Your task to perform on an android device: turn off javascript in the chrome app Image 0: 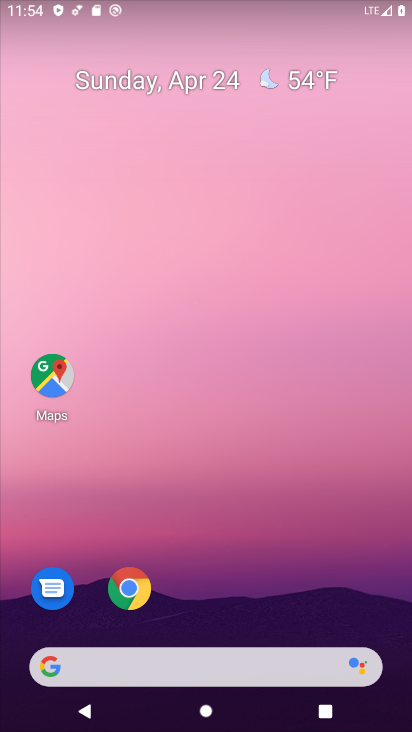
Step 0: drag from (230, 626) to (230, 5)
Your task to perform on an android device: turn off javascript in the chrome app Image 1: 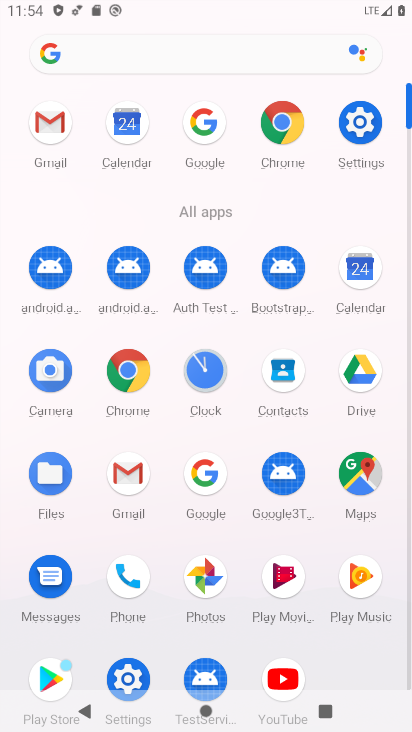
Step 1: click (126, 375)
Your task to perform on an android device: turn off javascript in the chrome app Image 2: 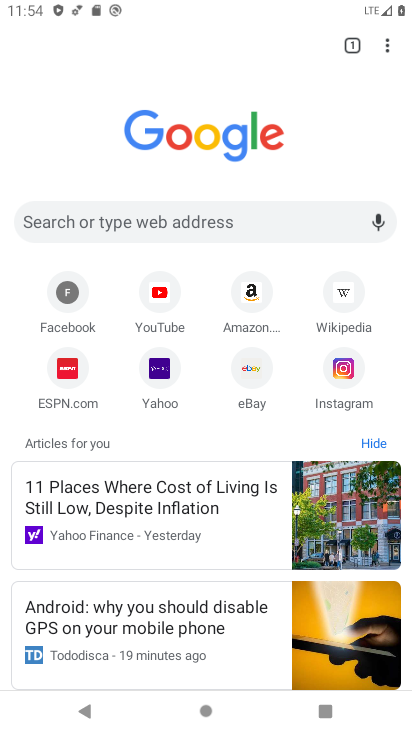
Step 2: click (388, 50)
Your task to perform on an android device: turn off javascript in the chrome app Image 3: 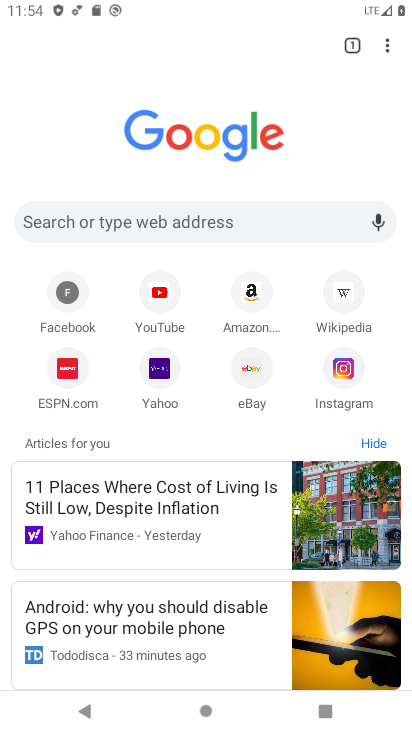
Step 3: click (391, 38)
Your task to perform on an android device: turn off javascript in the chrome app Image 4: 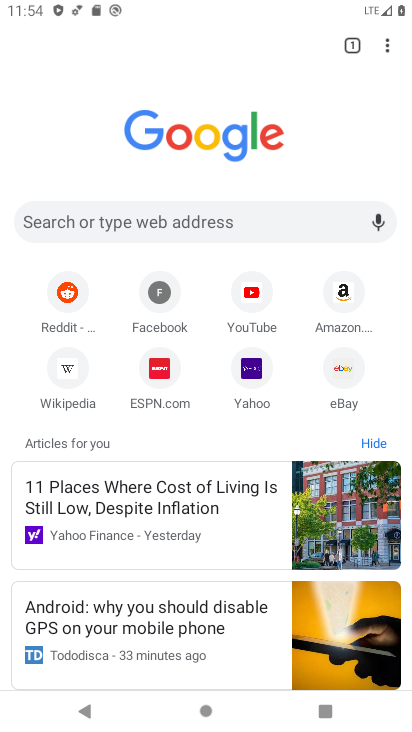
Step 4: click (387, 56)
Your task to perform on an android device: turn off javascript in the chrome app Image 5: 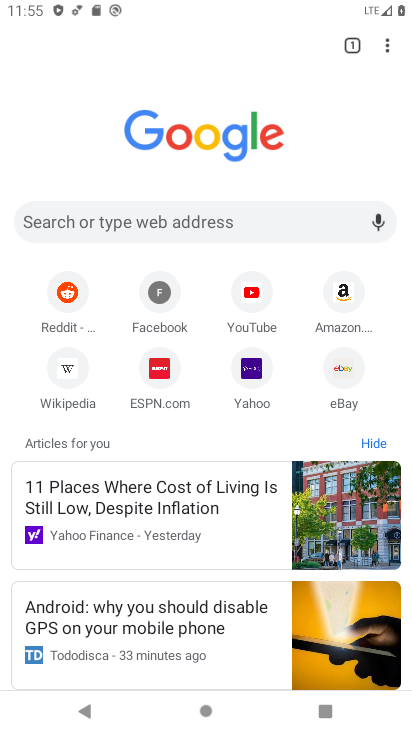
Step 5: drag from (386, 43) to (224, 389)
Your task to perform on an android device: turn off javascript in the chrome app Image 6: 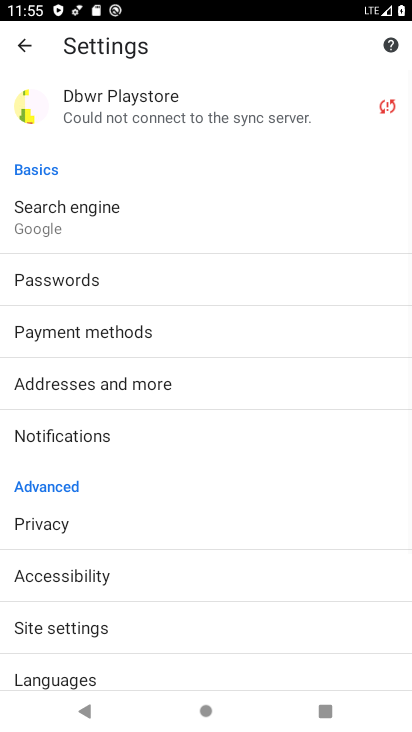
Step 6: drag from (221, 574) to (191, 297)
Your task to perform on an android device: turn off javascript in the chrome app Image 7: 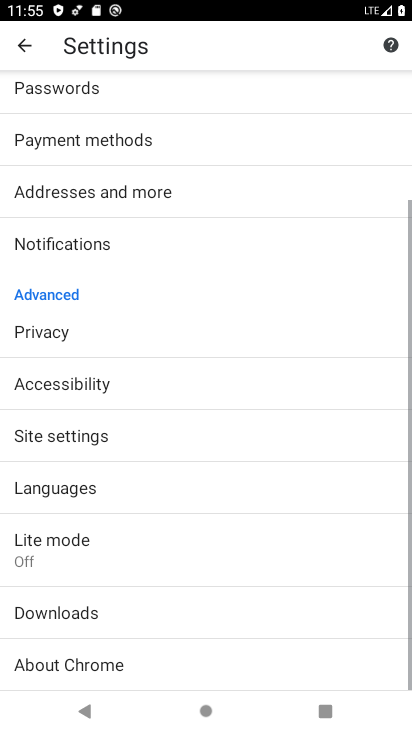
Step 7: click (94, 437)
Your task to perform on an android device: turn off javascript in the chrome app Image 8: 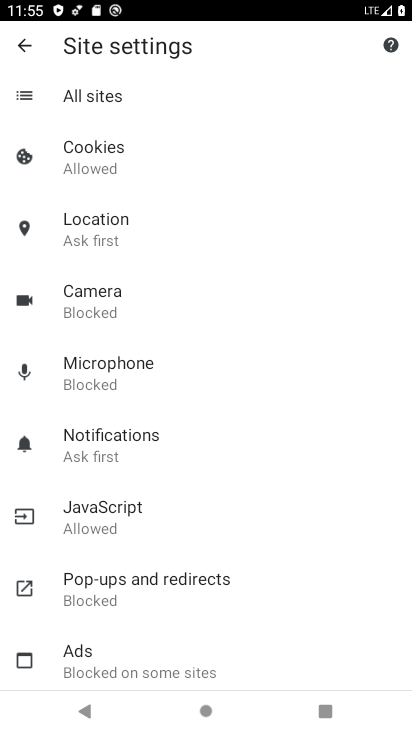
Step 8: click (97, 522)
Your task to perform on an android device: turn off javascript in the chrome app Image 9: 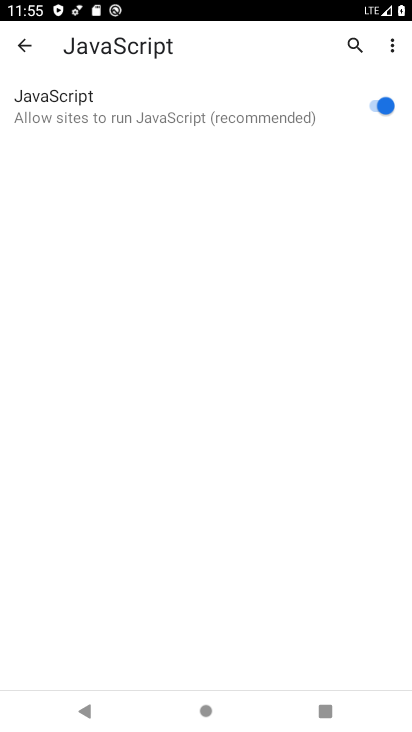
Step 9: click (367, 106)
Your task to perform on an android device: turn off javascript in the chrome app Image 10: 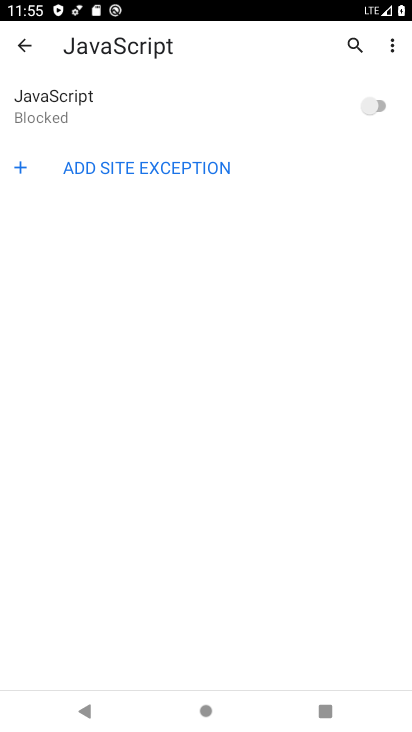
Step 10: task complete